Your task to perform on an android device: Open Chrome and go to the settings page Image 0: 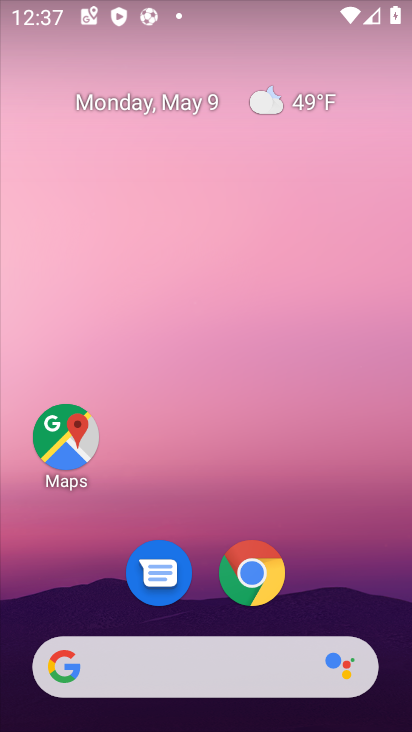
Step 0: click (273, 586)
Your task to perform on an android device: Open Chrome and go to the settings page Image 1: 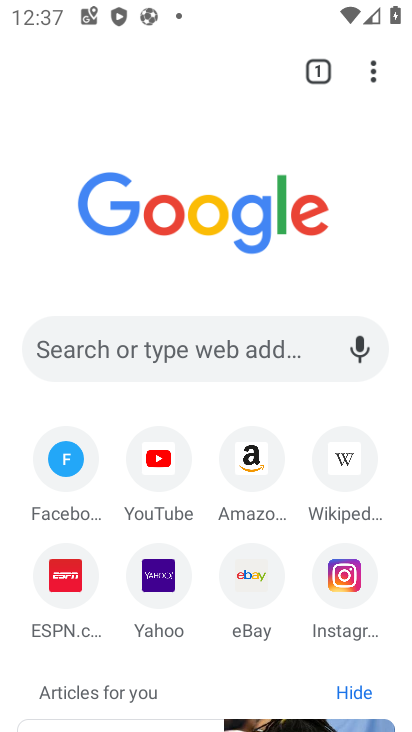
Step 1: click (377, 65)
Your task to perform on an android device: Open Chrome and go to the settings page Image 2: 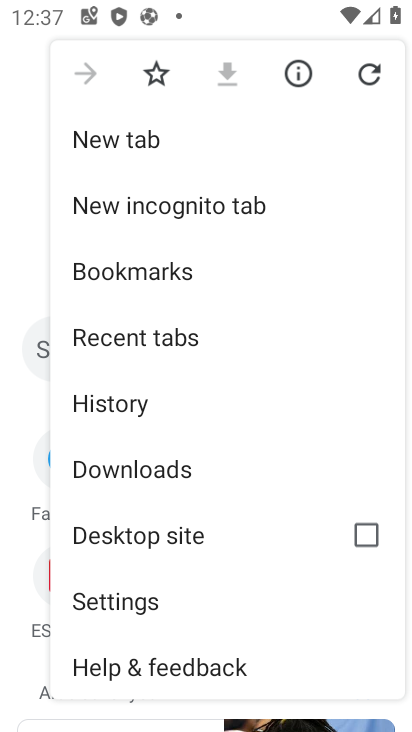
Step 2: click (164, 602)
Your task to perform on an android device: Open Chrome and go to the settings page Image 3: 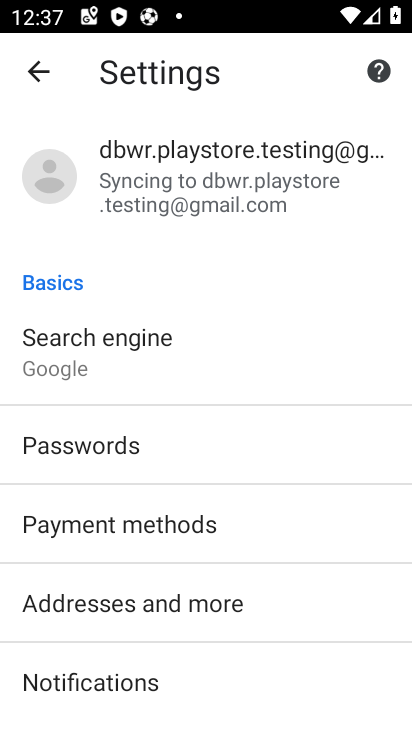
Step 3: task complete